Your task to perform on an android device: turn smart compose on in the gmail app Image 0: 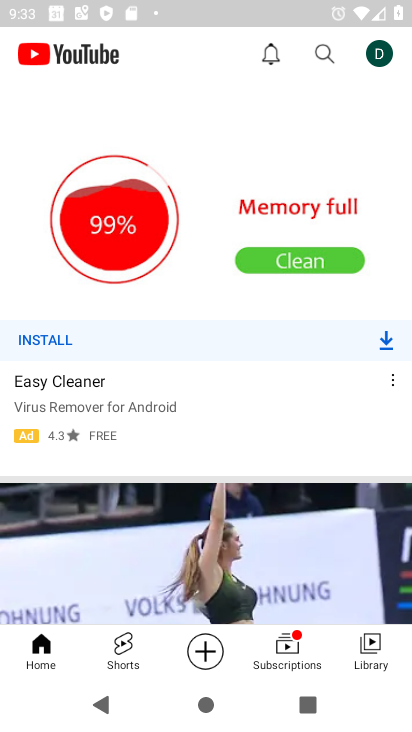
Step 0: press home button
Your task to perform on an android device: turn smart compose on in the gmail app Image 1: 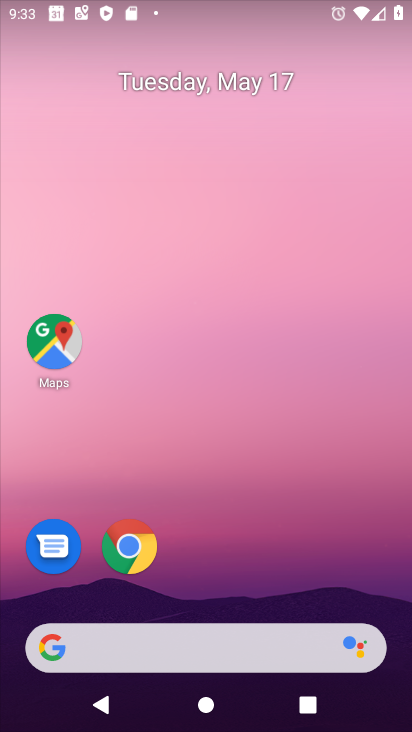
Step 1: drag from (234, 593) to (383, 34)
Your task to perform on an android device: turn smart compose on in the gmail app Image 2: 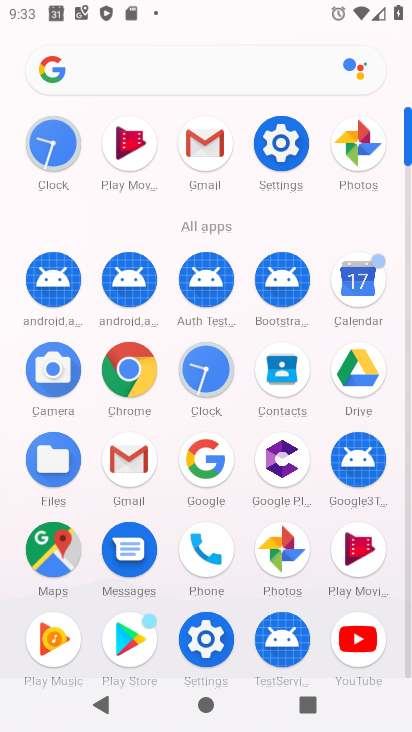
Step 2: click (202, 154)
Your task to perform on an android device: turn smart compose on in the gmail app Image 3: 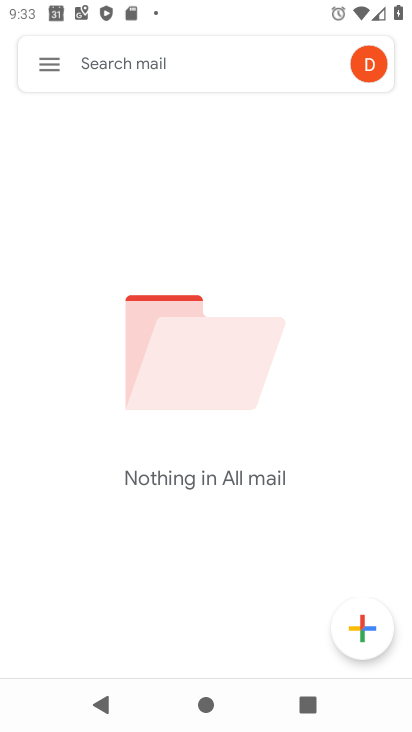
Step 3: click (45, 73)
Your task to perform on an android device: turn smart compose on in the gmail app Image 4: 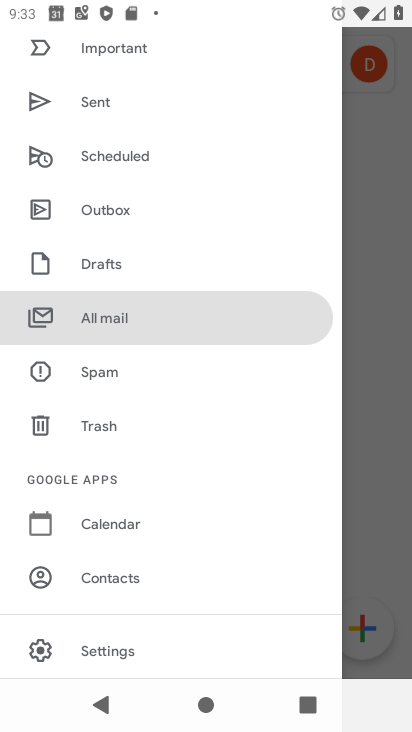
Step 4: click (116, 659)
Your task to perform on an android device: turn smart compose on in the gmail app Image 5: 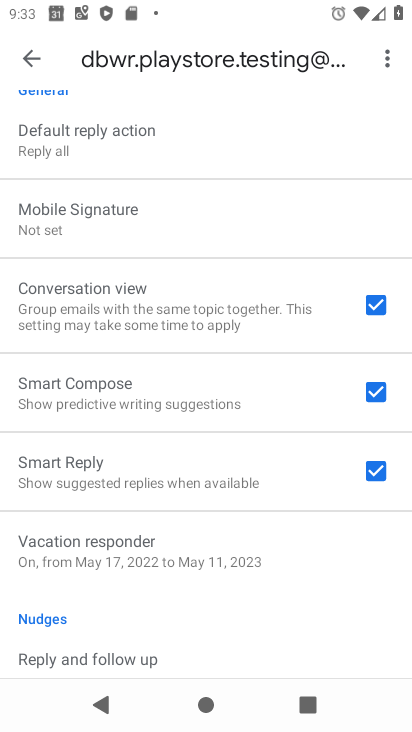
Step 5: task complete